Your task to perform on an android device: open sync settings in chrome Image 0: 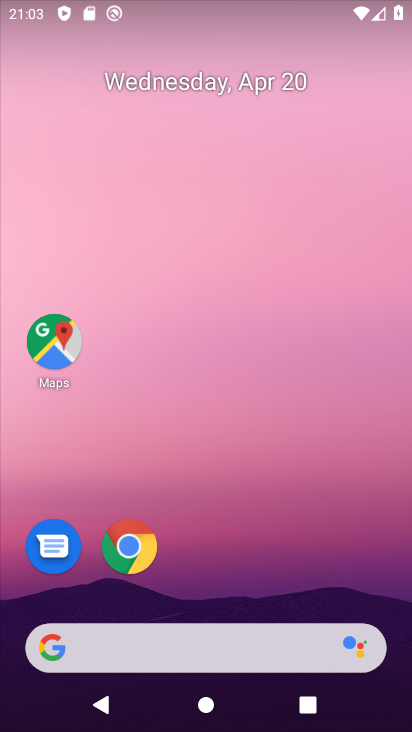
Step 0: click (136, 553)
Your task to perform on an android device: open sync settings in chrome Image 1: 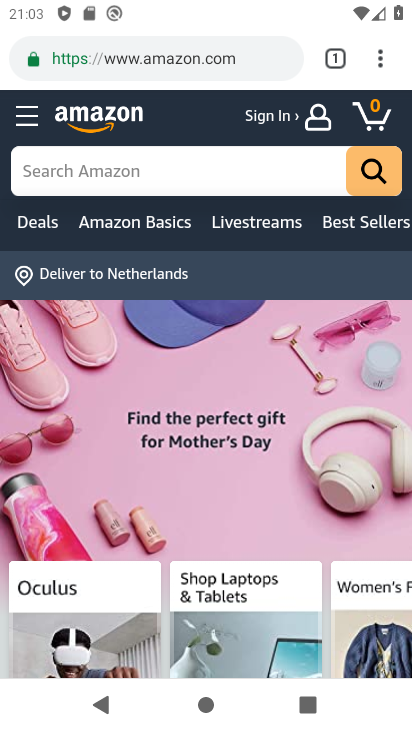
Step 1: click (374, 63)
Your task to perform on an android device: open sync settings in chrome Image 2: 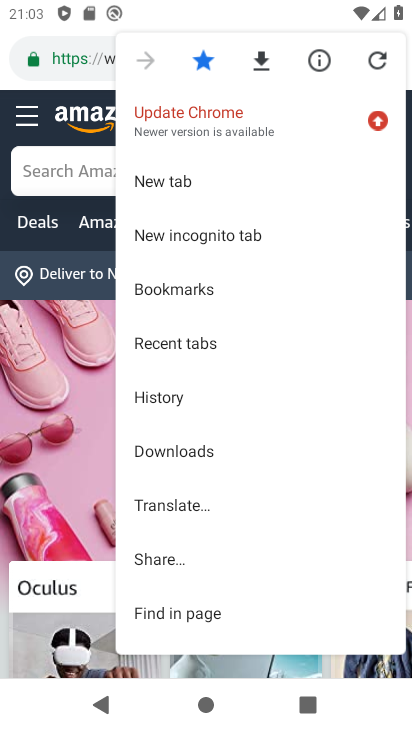
Step 2: drag from (240, 601) to (236, 178)
Your task to perform on an android device: open sync settings in chrome Image 3: 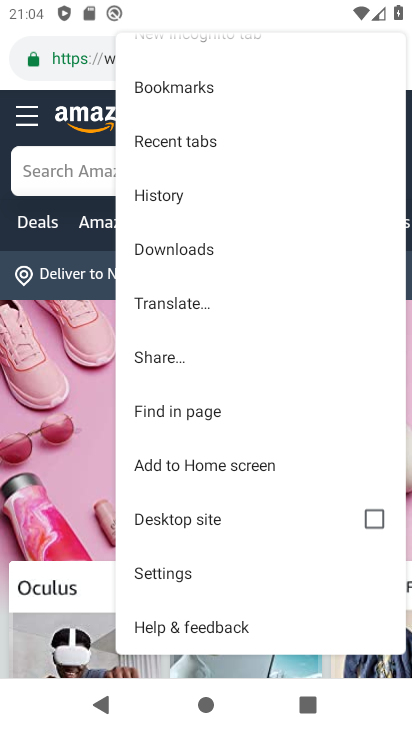
Step 3: click (189, 568)
Your task to perform on an android device: open sync settings in chrome Image 4: 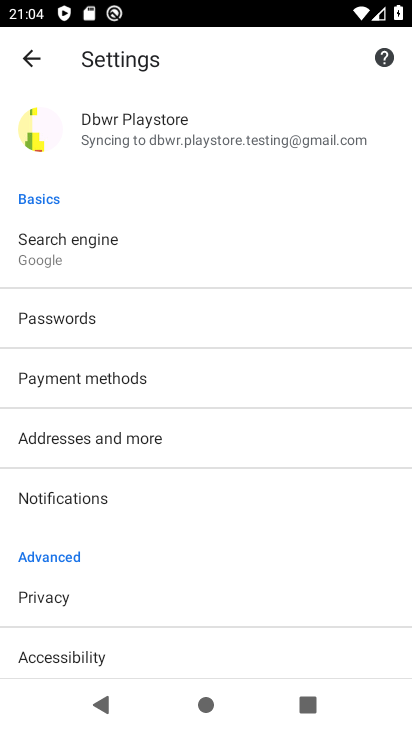
Step 4: drag from (177, 529) to (141, 600)
Your task to perform on an android device: open sync settings in chrome Image 5: 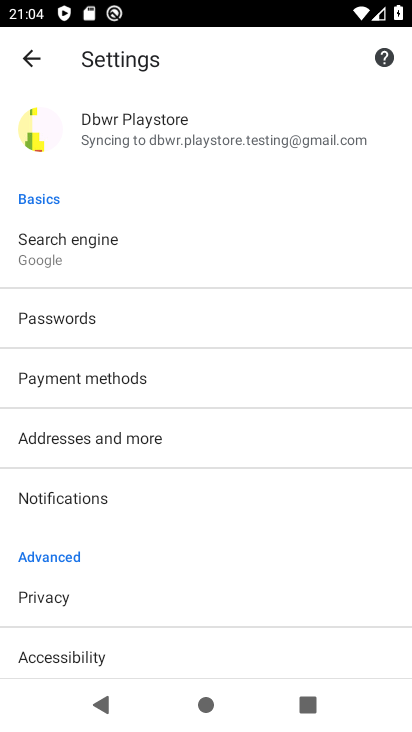
Step 5: click (119, 125)
Your task to perform on an android device: open sync settings in chrome Image 6: 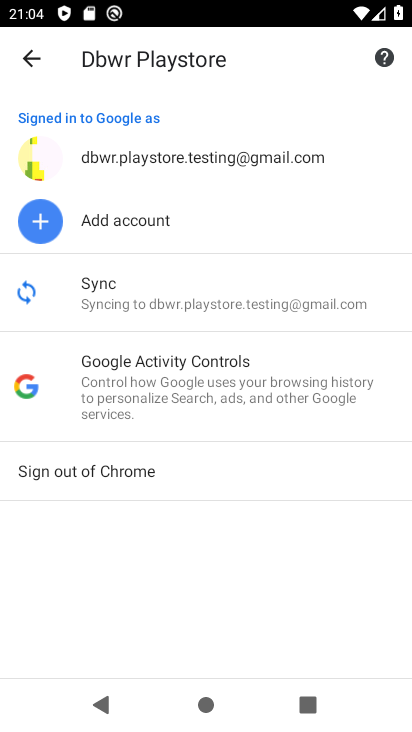
Step 6: click (134, 295)
Your task to perform on an android device: open sync settings in chrome Image 7: 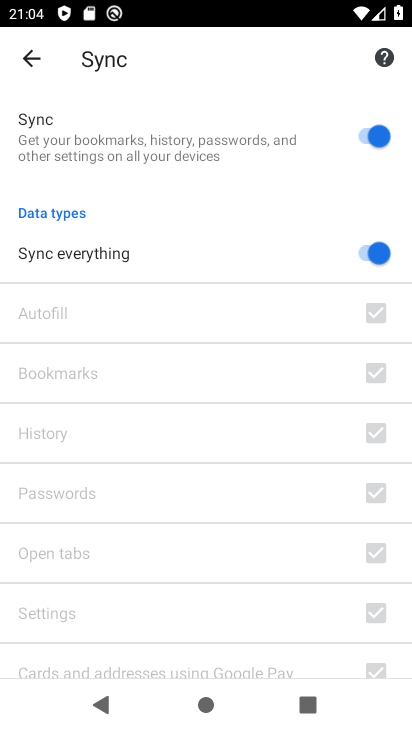
Step 7: task complete